Your task to perform on an android device: Open privacy settings Image 0: 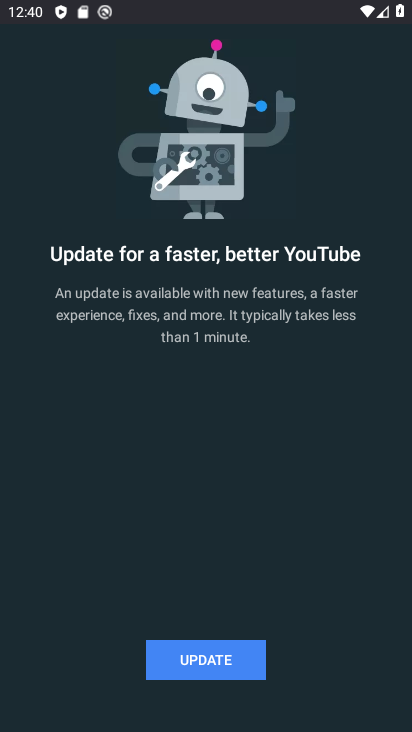
Step 0: press back button
Your task to perform on an android device: Open privacy settings Image 1: 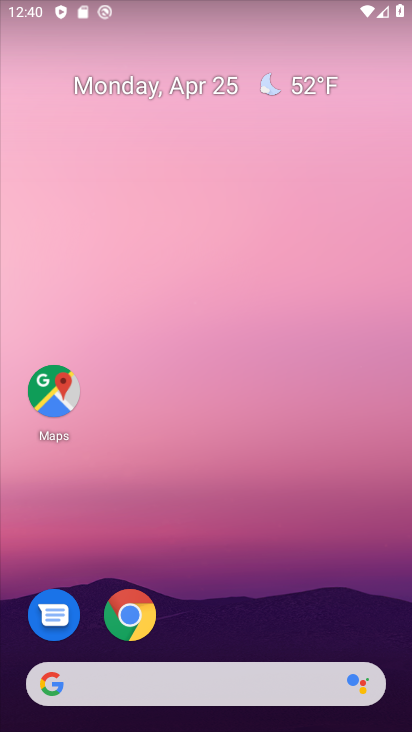
Step 1: click (126, 622)
Your task to perform on an android device: Open privacy settings Image 2: 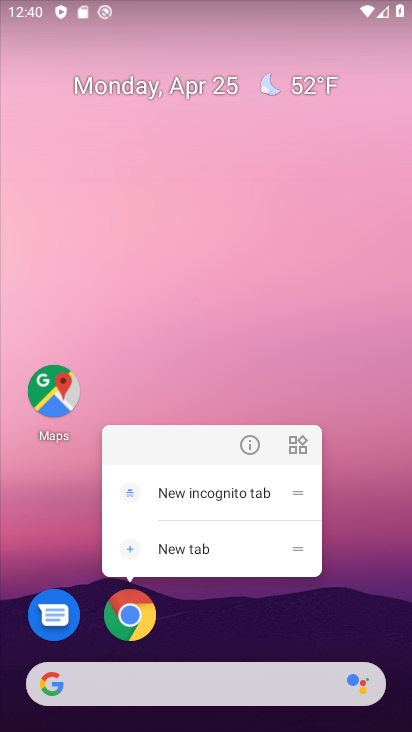
Step 2: click (133, 622)
Your task to perform on an android device: Open privacy settings Image 3: 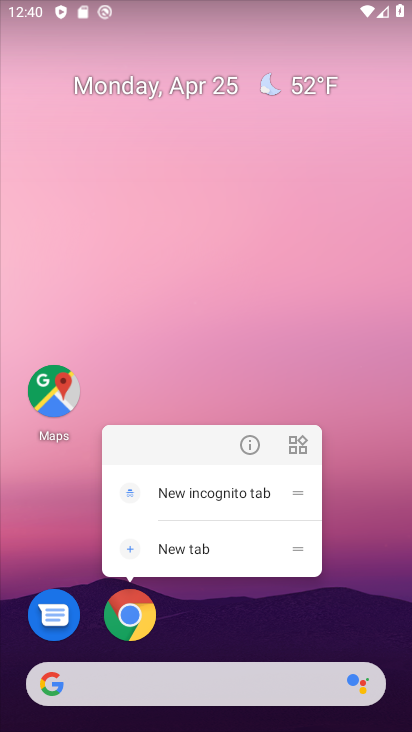
Step 3: click (133, 622)
Your task to perform on an android device: Open privacy settings Image 4: 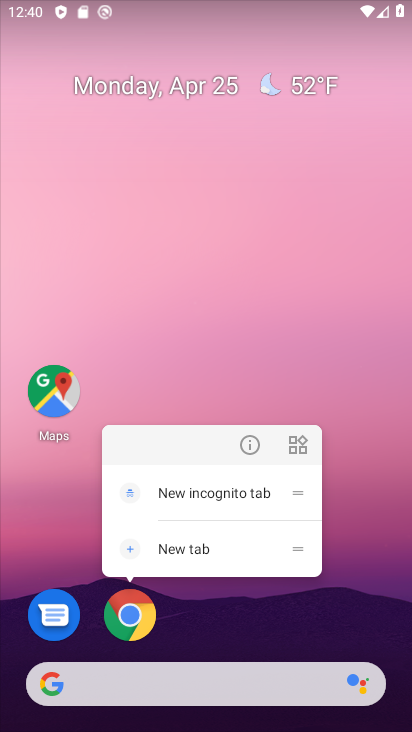
Step 4: click (147, 617)
Your task to perform on an android device: Open privacy settings Image 5: 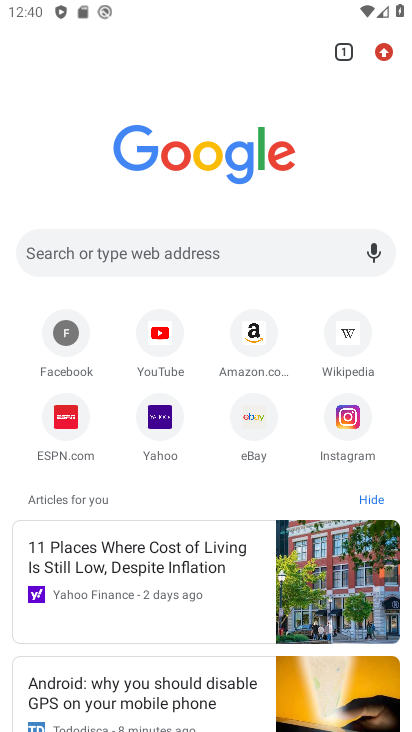
Step 5: drag from (382, 51) to (274, 496)
Your task to perform on an android device: Open privacy settings Image 6: 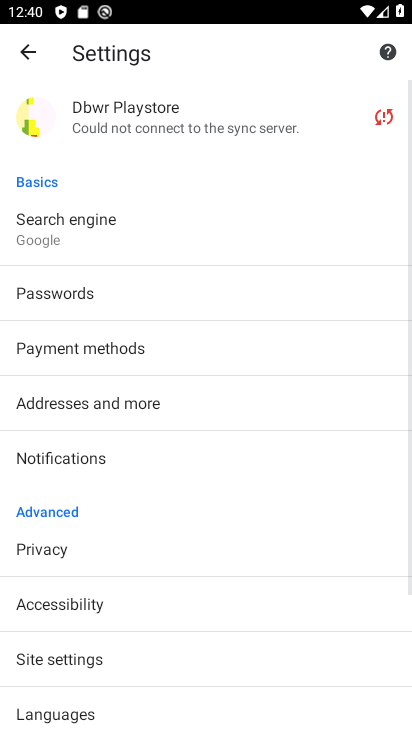
Step 6: click (80, 563)
Your task to perform on an android device: Open privacy settings Image 7: 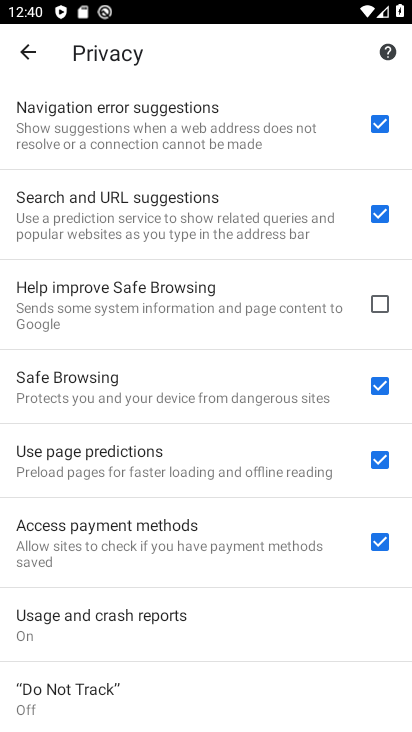
Step 7: task complete